Your task to perform on an android device: Open Chrome and go to settings Image 0: 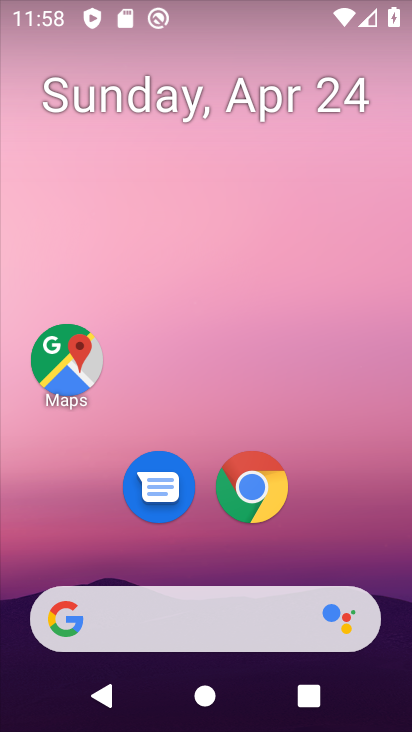
Step 0: drag from (394, 629) to (259, 151)
Your task to perform on an android device: Open Chrome and go to settings Image 1: 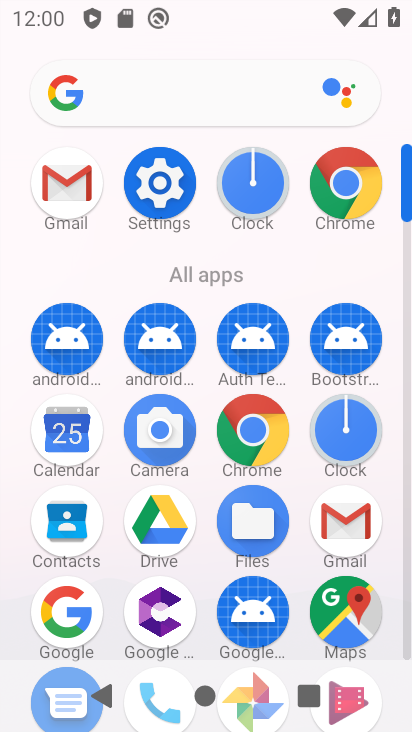
Step 1: click (254, 416)
Your task to perform on an android device: Open Chrome and go to settings Image 2: 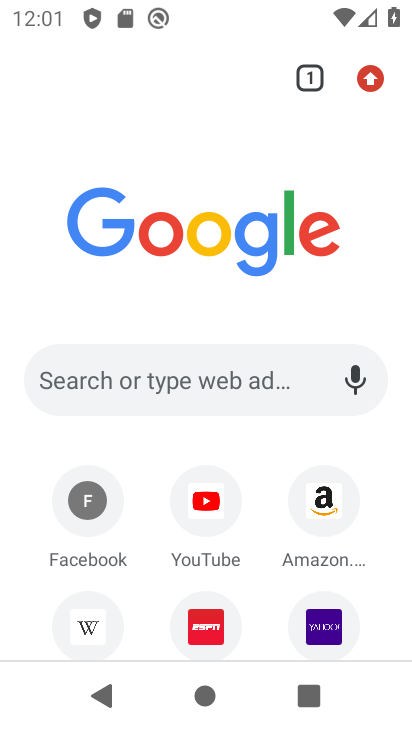
Step 2: click (366, 71)
Your task to perform on an android device: Open Chrome and go to settings Image 3: 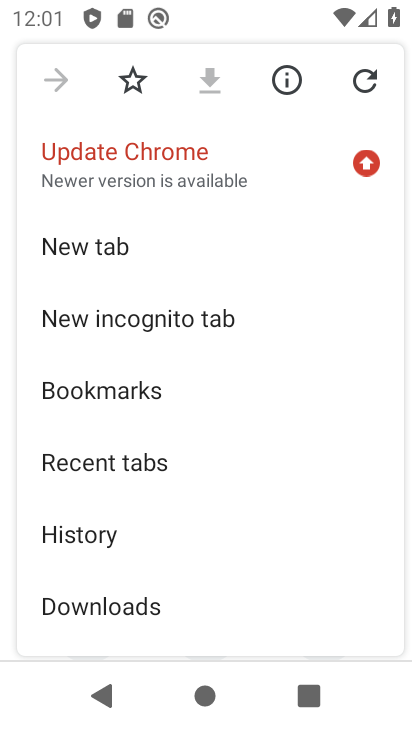
Step 3: drag from (174, 512) to (185, 318)
Your task to perform on an android device: Open Chrome and go to settings Image 4: 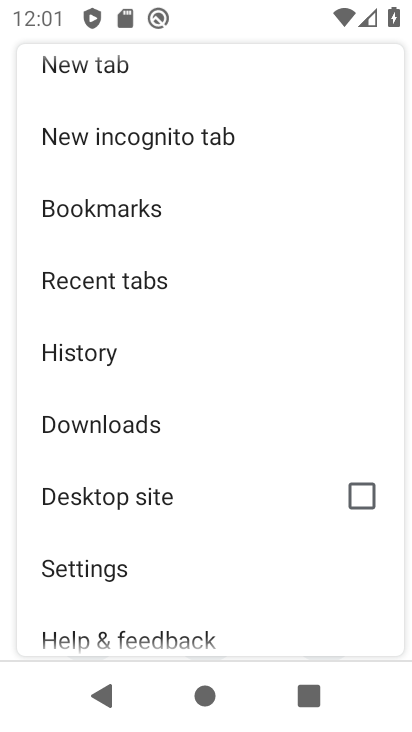
Step 4: click (144, 577)
Your task to perform on an android device: Open Chrome and go to settings Image 5: 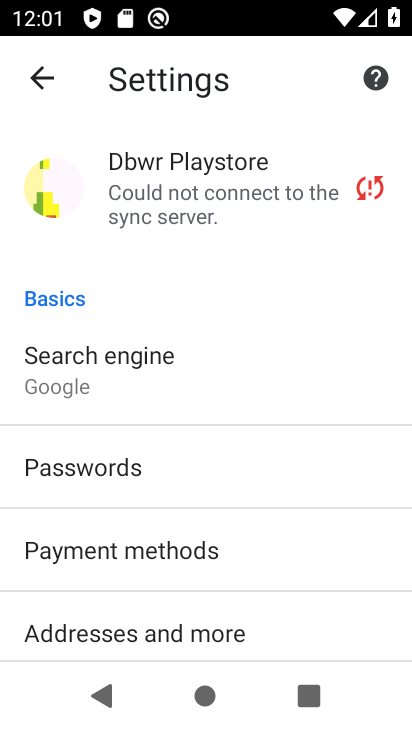
Step 5: task complete